Your task to perform on an android device: Open Maps and search for coffee Image 0: 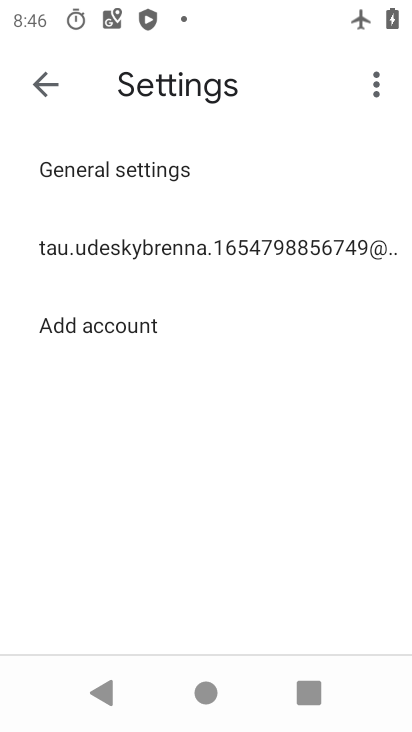
Step 0: press home button
Your task to perform on an android device: Open Maps and search for coffee Image 1: 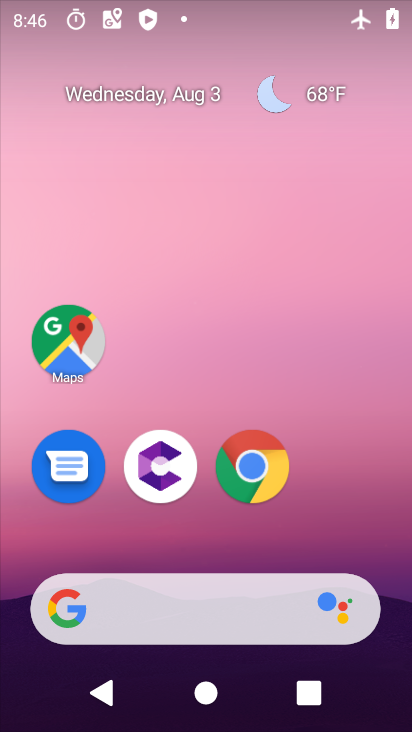
Step 1: drag from (306, 550) to (233, 134)
Your task to perform on an android device: Open Maps and search for coffee Image 2: 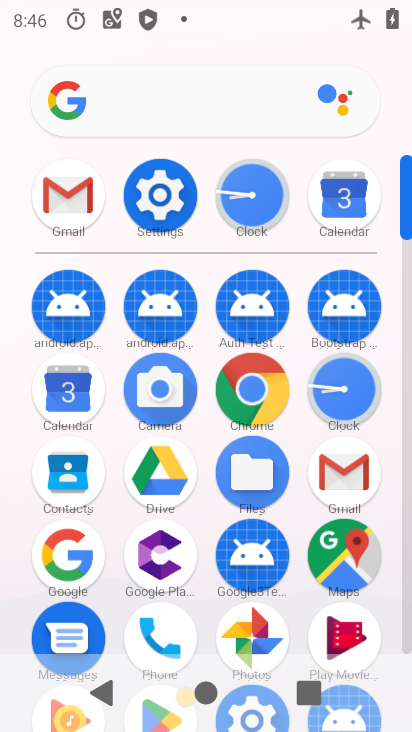
Step 2: click (356, 563)
Your task to perform on an android device: Open Maps and search for coffee Image 3: 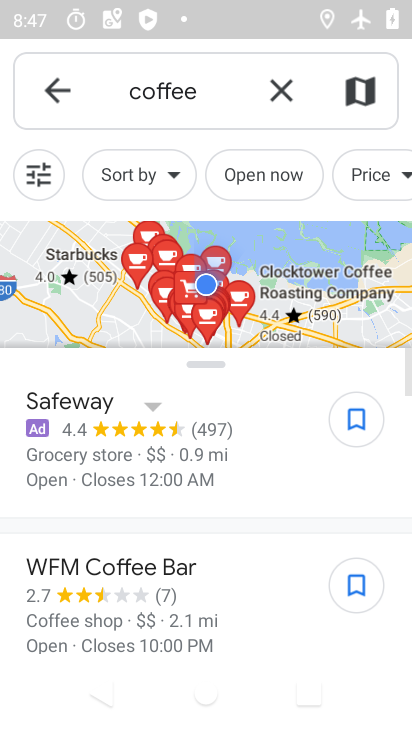
Step 3: task complete